Your task to perform on an android device: Turn on the flashlight Image 0: 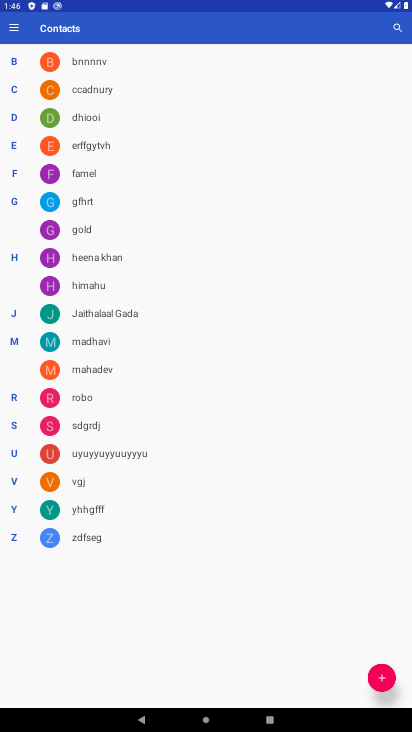
Step 0: drag from (246, 12) to (246, 727)
Your task to perform on an android device: Turn on the flashlight Image 1: 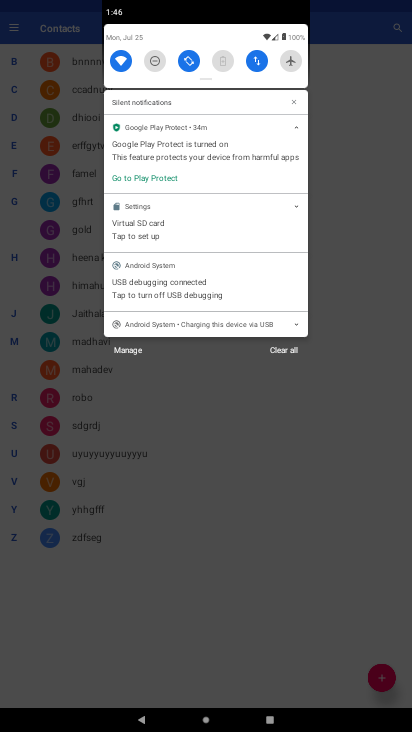
Step 1: task complete